Your task to perform on an android device: Go to Google maps Image 0: 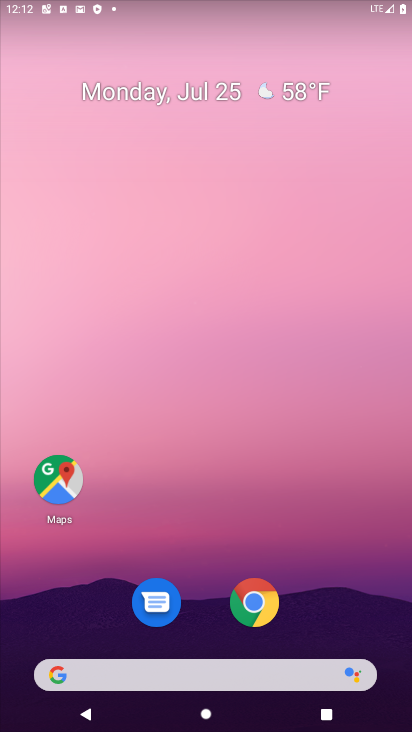
Step 0: click (63, 468)
Your task to perform on an android device: Go to Google maps Image 1: 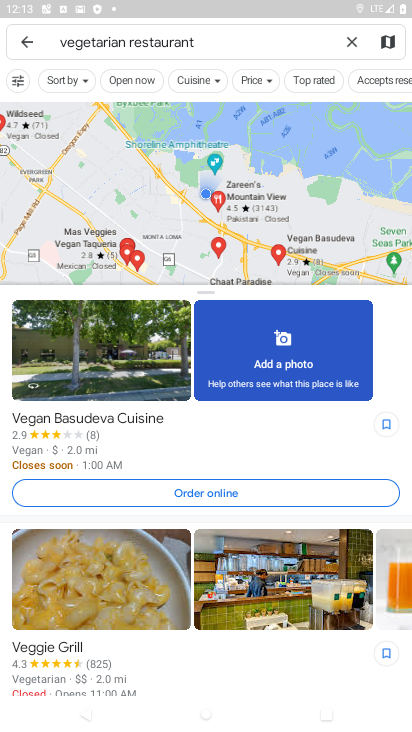
Step 1: task complete